Your task to perform on an android device: Search for flights from Barcelona to Boston Image 0: 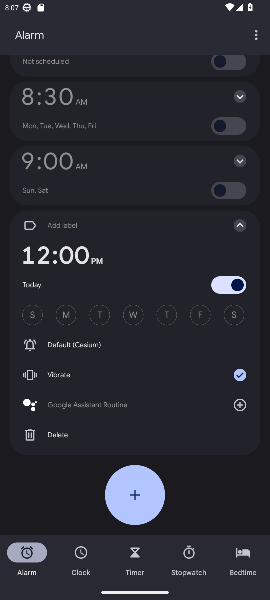
Step 0: press home button
Your task to perform on an android device: Search for flights from Barcelona to Boston Image 1: 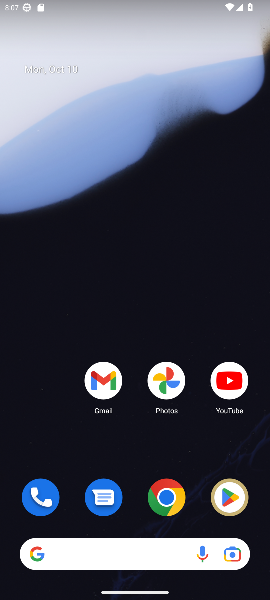
Step 1: drag from (118, 448) to (129, 249)
Your task to perform on an android device: Search for flights from Barcelona to Boston Image 2: 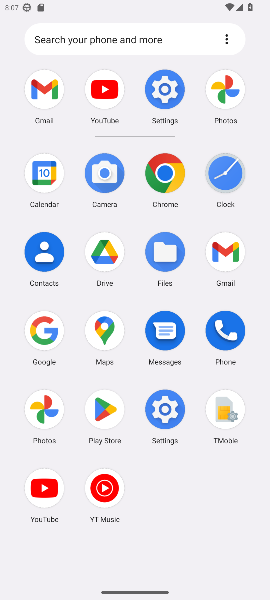
Step 2: click (32, 329)
Your task to perform on an android device: Search for flights from Barcelona to Boston Image 3: 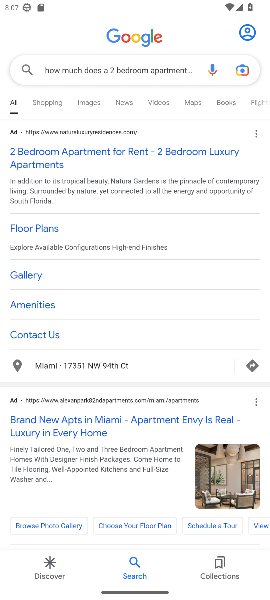
Step 3: click (163, 67)
Your task to perform on an android device: Search for flights from Barcelona to Boston Image 4: 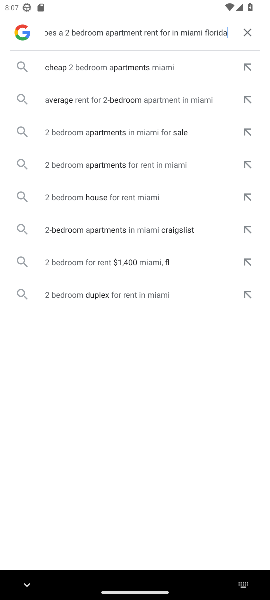
Step 4: click (247, 26)
Your task to perform on an android device: Search for flights from Barcelona to Boston Image 5: 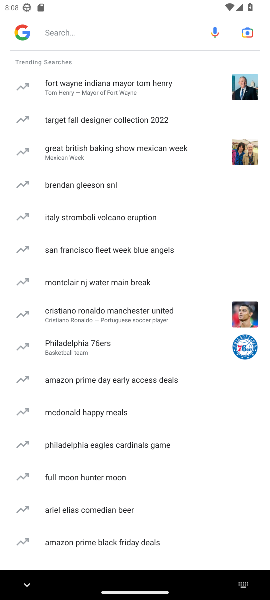
Step 5: click (105, 27)
Your task to perform on an android device: Search for flights from Barcelona to Boston Image 6: 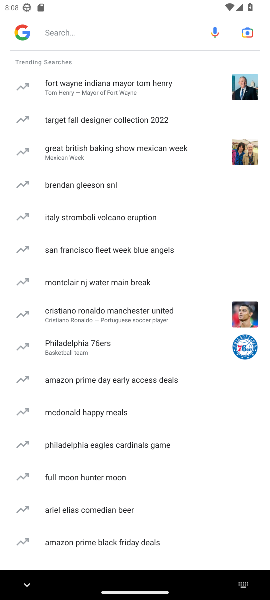
Step 6: click (105, 27)
Your task to perform on an android device: Search for flights from Barcelona to Boston Image 7: 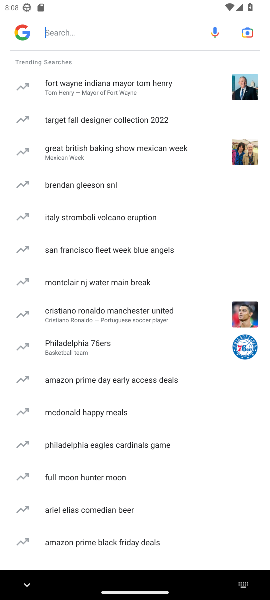
Step 7: type "Search for flights from Barcelona to Boston "
Your task to perform on an android device: Search for flights from Barcelona to Boston Image 8: 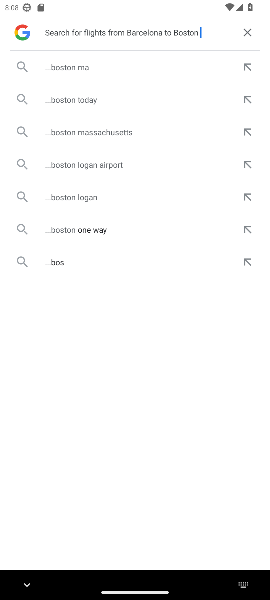
Step 8: click (77, 64)
Your task to perform on an android device: Search for flights from Barcelona to Boston Image 9: 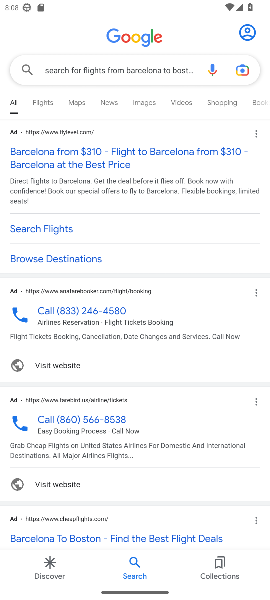
Step 9: click (93, 169)
Your task to perform on an android device: Search for flights from Barcelona to Boston Image 10: 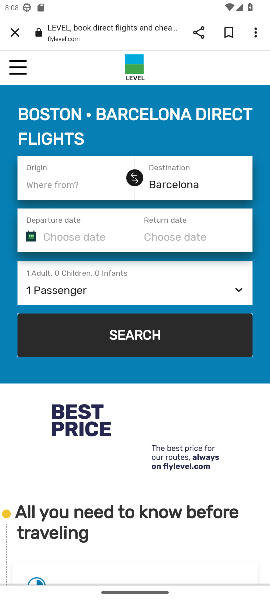
Step 10: click (129, 342)
Your task to perform on an android device: Search for flights from Barcelona to Boston Image 11: 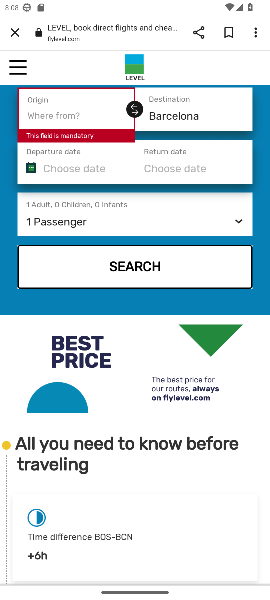
Step 11: drag from (133, 485) to (183, 133)
Your task to perform on an android device: Search for flights from Barcelona to Boston Image 12: 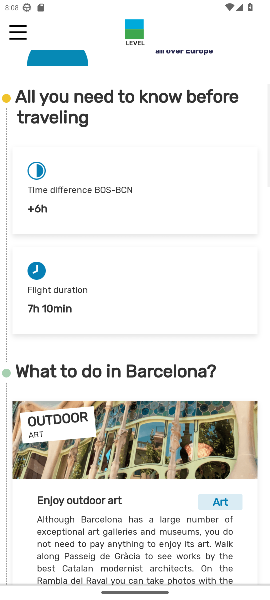
Step 12: drag from (149, 210) to (120, 407)
Your task to perform on an android device: Search for flights from Barcelona to Boston Image 13: 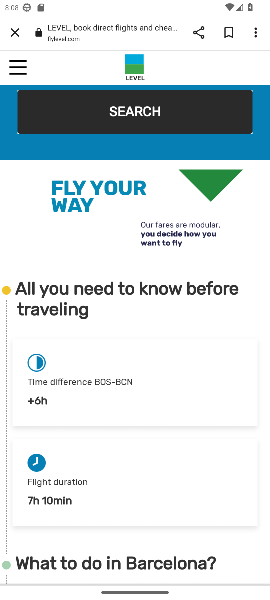
Step 13: click (9, 31)
Your task to perform on an android device: Search for flights from Barcelona to Boston Image 14: 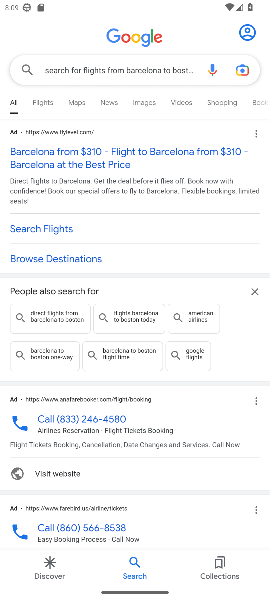
Step 14: click (45, 228)
Your task to perform on an android device: Search for flights from Barcelona to Boston Image 15: 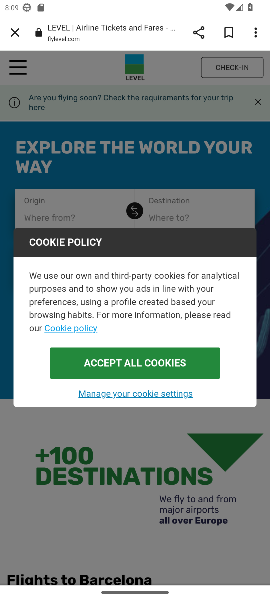
Step 15: click (134, 363)
Your task to perform on an android device: Search for flights from Barcelona to Boston Image 16: 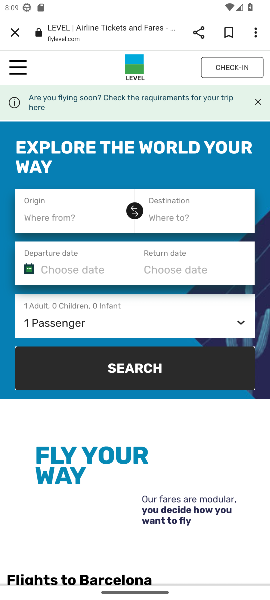
Step 16: task complete